Your task to perform on an android device: Go to eBay Image 0: 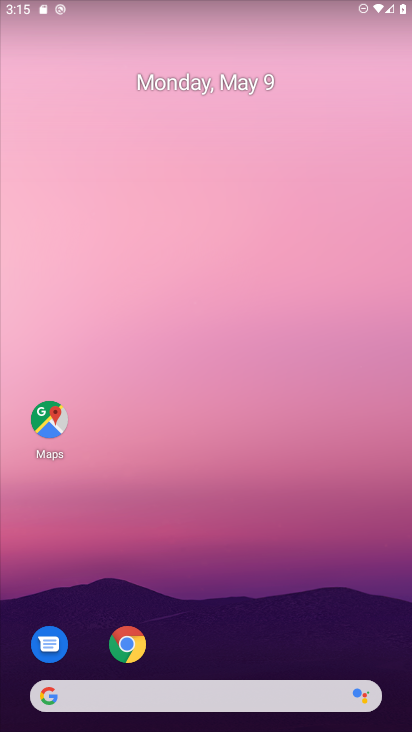
Step 0: click (136, 662)
Your task to perform on an android device: Go to eBay Image 1: 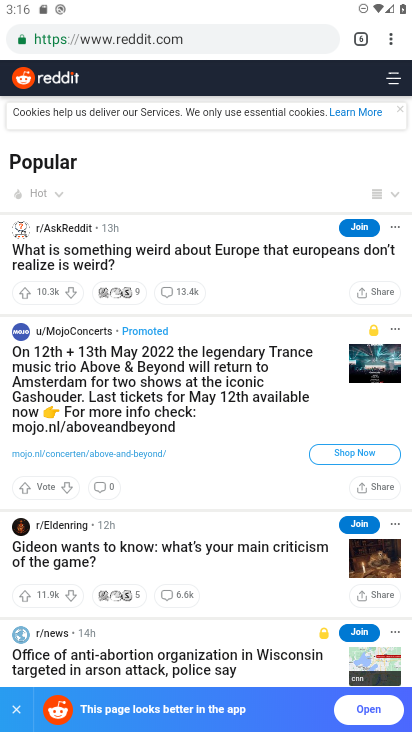
Step 1: click (180, 50)
Your task to perform on an android device: Go to eBay Image 2: 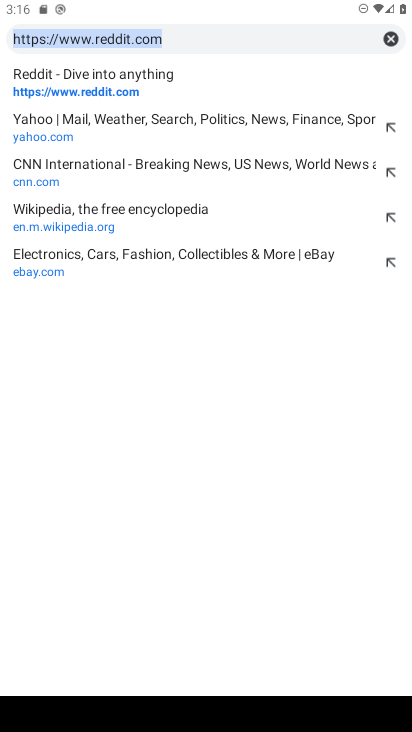
Step 2: type "www."
Your task to perform on an android device: Go to eBay Image 3: 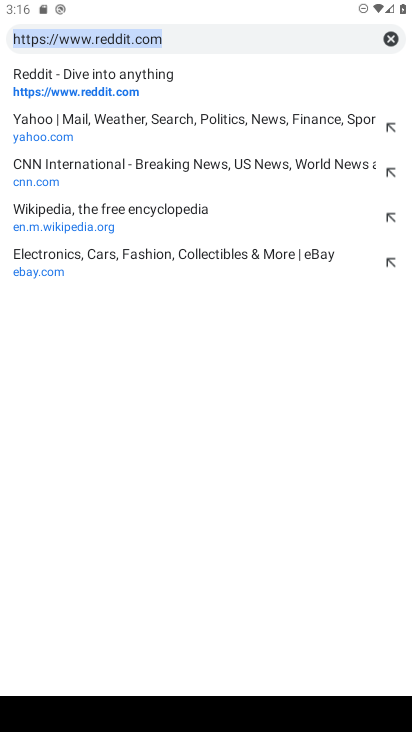
Step 3: click (126, 258)
Your task to perform on an android device: Go to eBay Image 4: 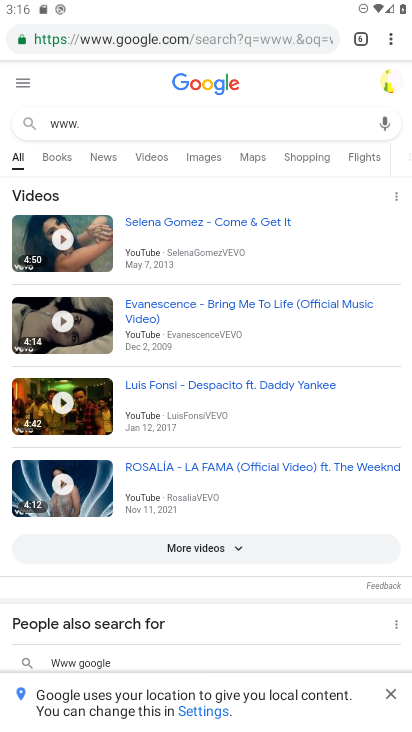
Step 4: task complete